Your task to perform on an android device: turn off smart reply in the gmail app Image 0: 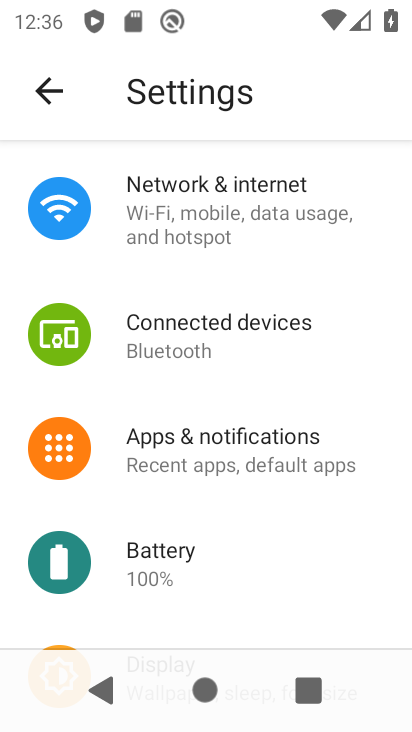
Step 0: press home button
Your task to perform on an android device: turn off smart reply in the gmail app Image 1: 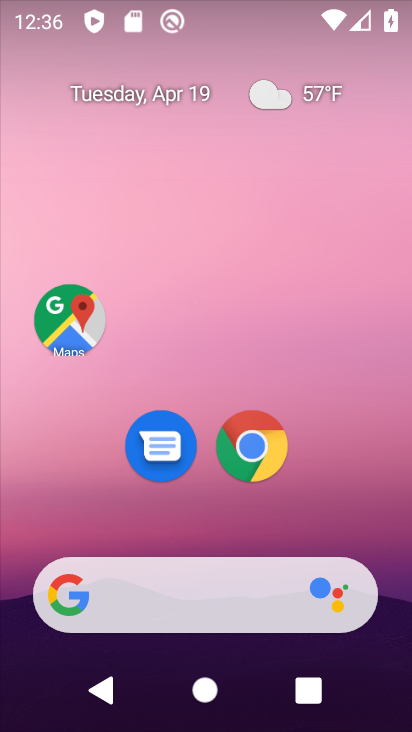
Step 1: drag from (316, 485) to (322, 89)
Your task to perform on an android device: turn off smart reply in the gmail app Image 2: 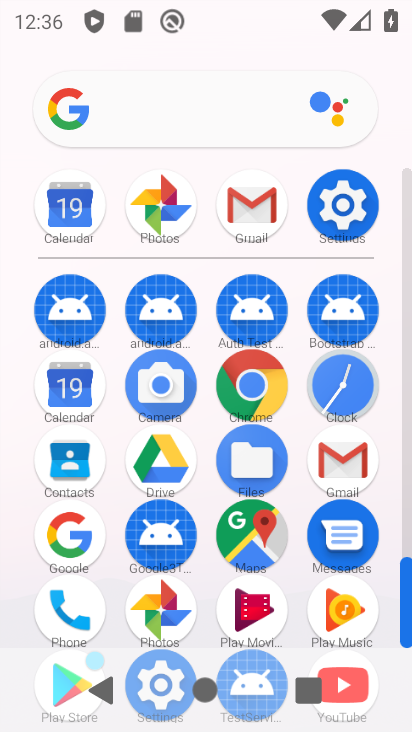
Step 2: click (334, 457)
Your task to perform on an android device: turn off smart reply in the gmail app Image 3: 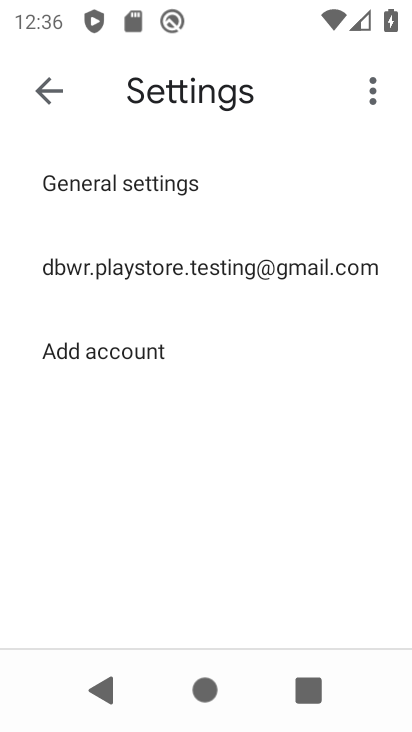
Step 3: click (155, 257)
Your task to perform on an android device: turn off smart reply in the gmail app Image 4: 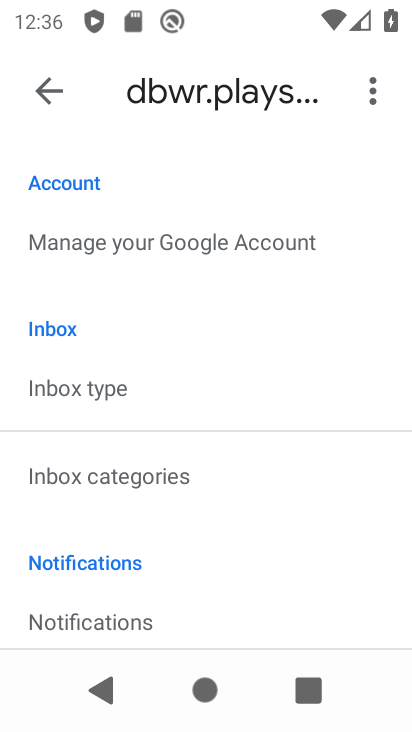
Step 4: drag from (217, 520) to (218, 243)
Your task to perform on an android device: turn off smart reply in the gmail app Image 5: 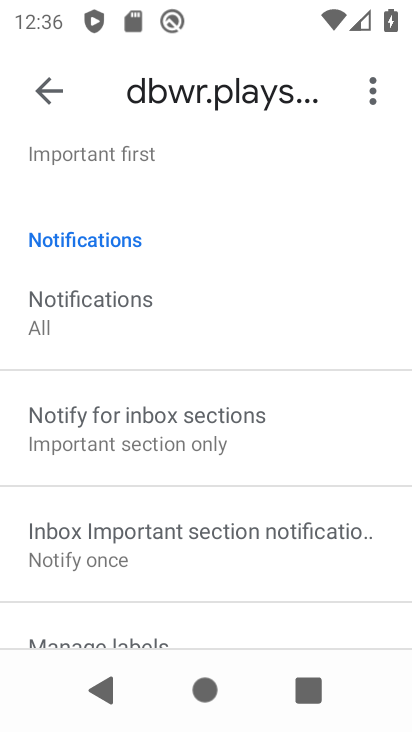
Step 5: drag from (227, 540) to (245, 213)
Your task to perform on an android device: turn off smart reply in the gmail app Image 6: 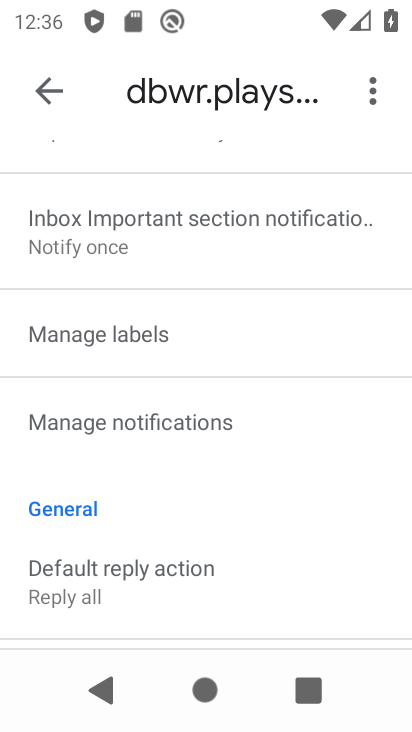
Step 6: drag from (259, 573) to (271, 185)
Your task to perform on an android device: turn off smart reply in the gmail app Image 7: 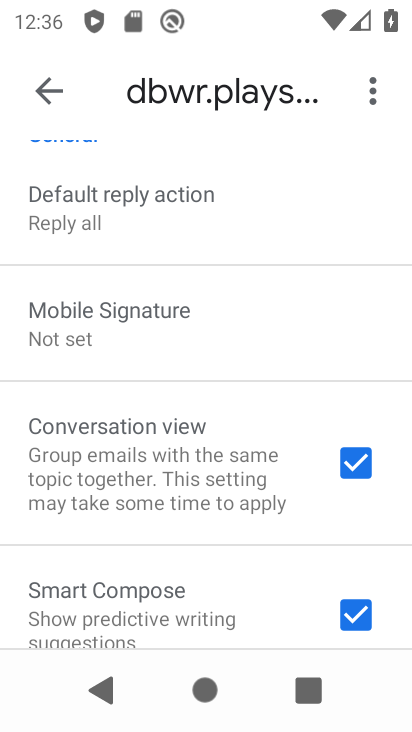
Step 7: drag from (229, 556) to (254, 132)
Your task to perform on an android device: turn off smart reply in the gmail app Image 8: 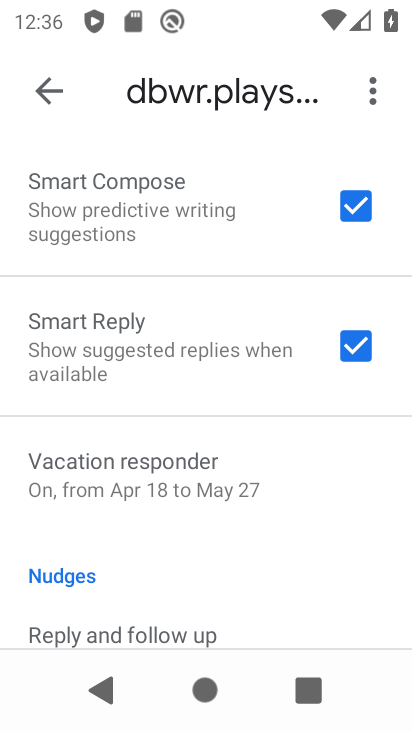
Step 8: click (352, 345)
Your task to perform on an android device: turn off smart reply in the gmail app Image 9: 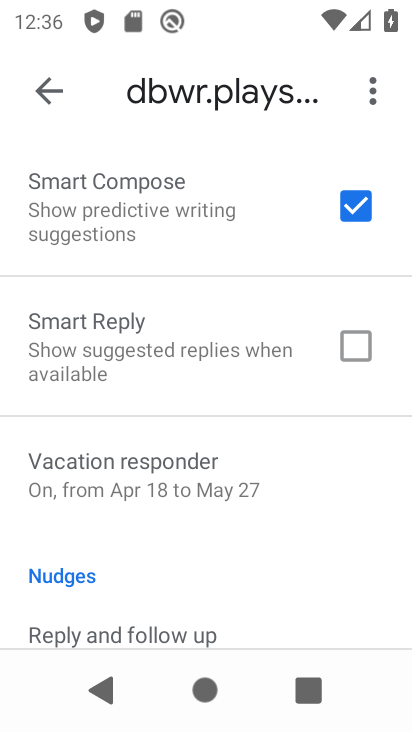
Step 9: task complete